Your task to perform on an android device: toggle sleep mode Image 0: 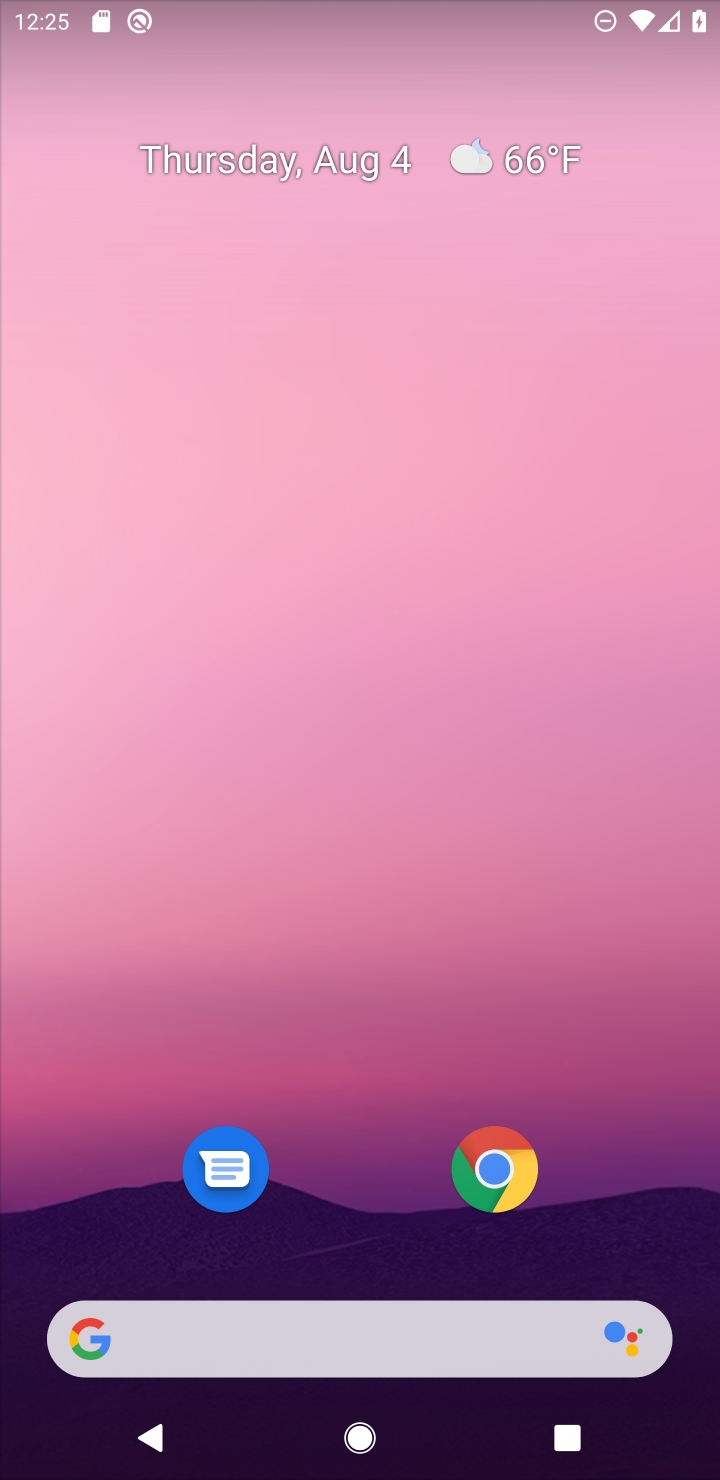
Step 0: drag from (605, 1154) to (639, 25)
Your task to perform on an android device: toggle sleep mode Image 1: 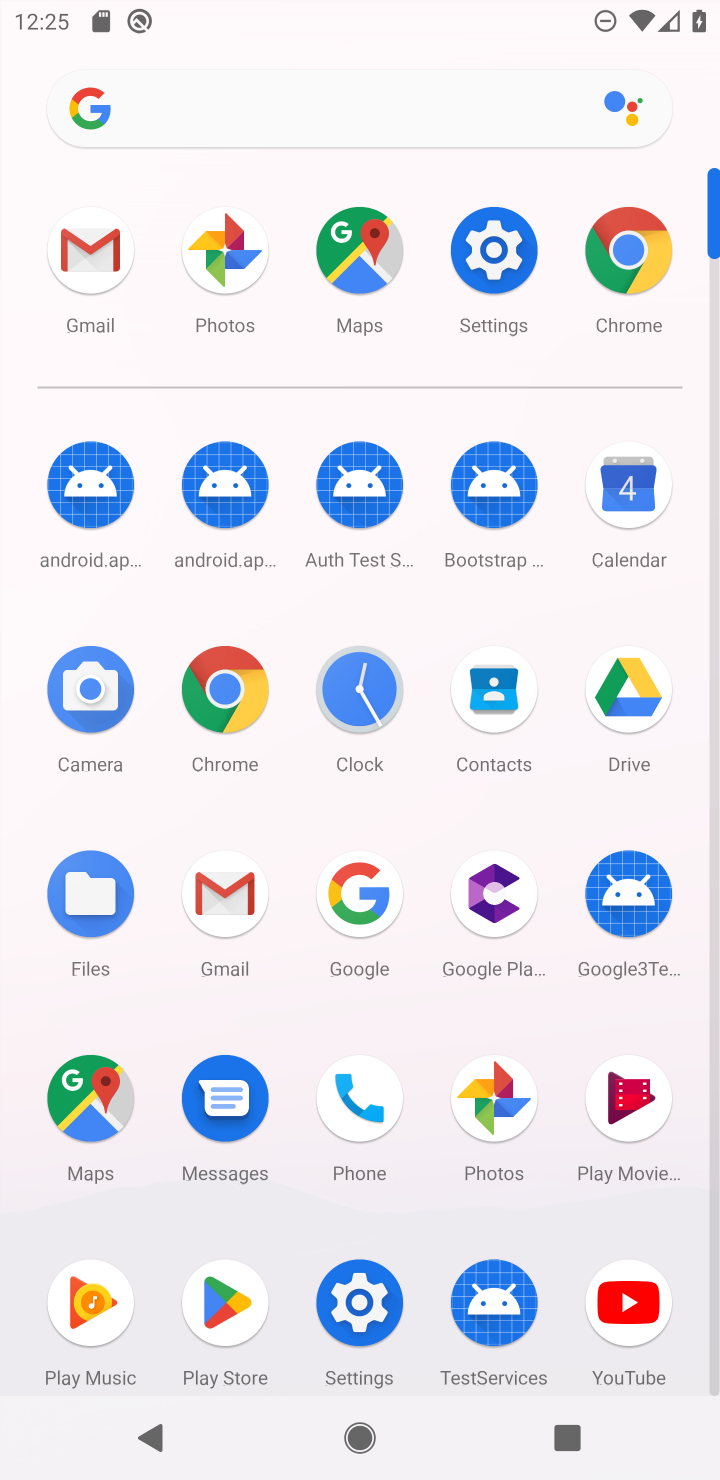
Step 1: click (492, 255)
Your task to perform on an android device: toggle sleep mode Image 2: 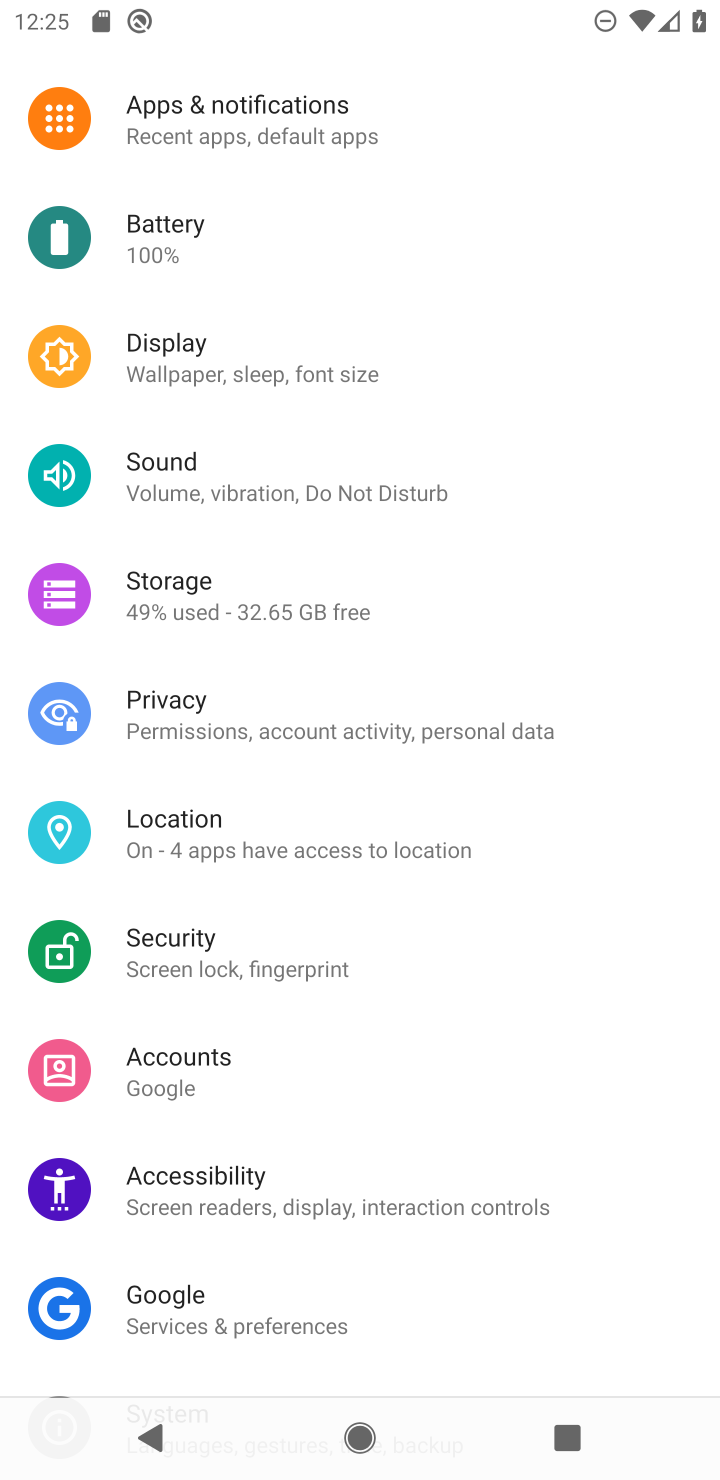
Step 2: click (202, 369)
Your task to perform on an android device: toggle sleep mode Image 3: 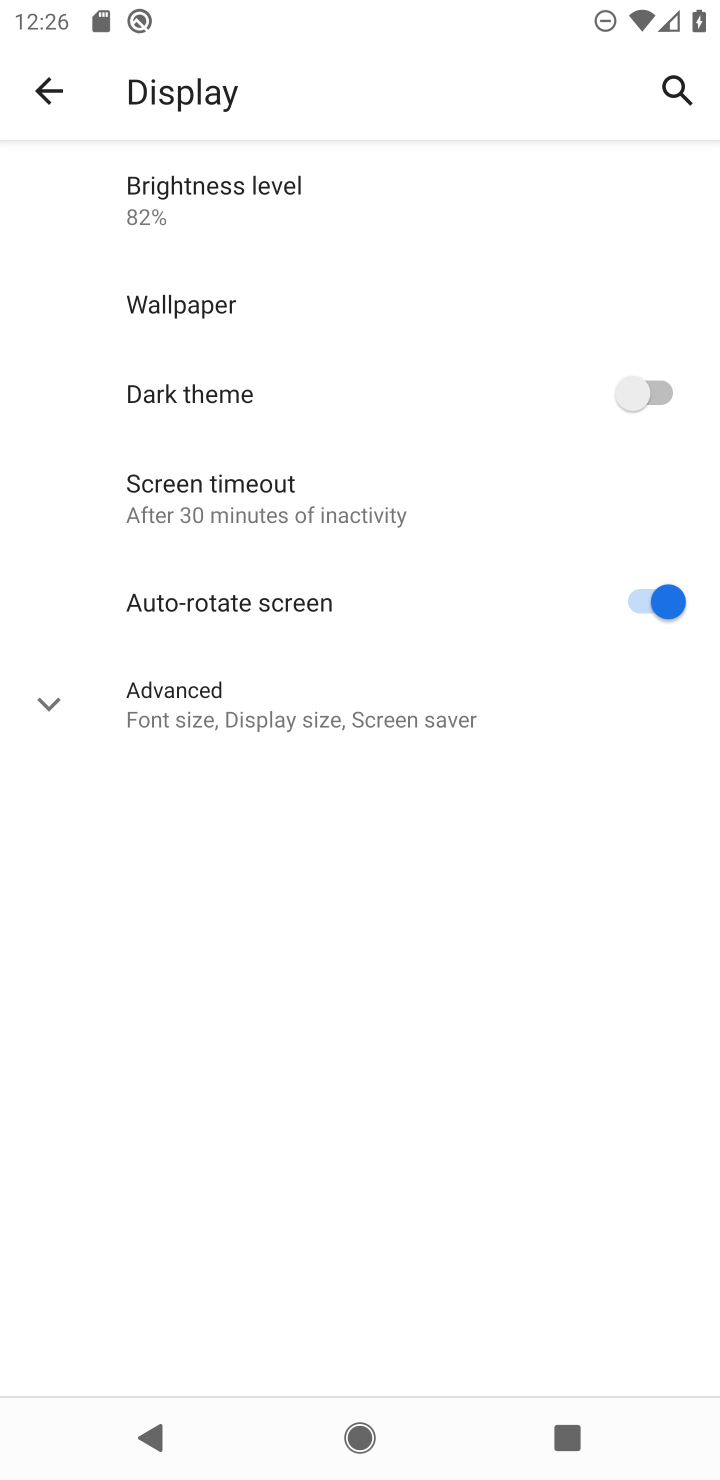
Step 3: click (56, 717)
Your task to perform on an android device: toggle sleep mode Image 4: 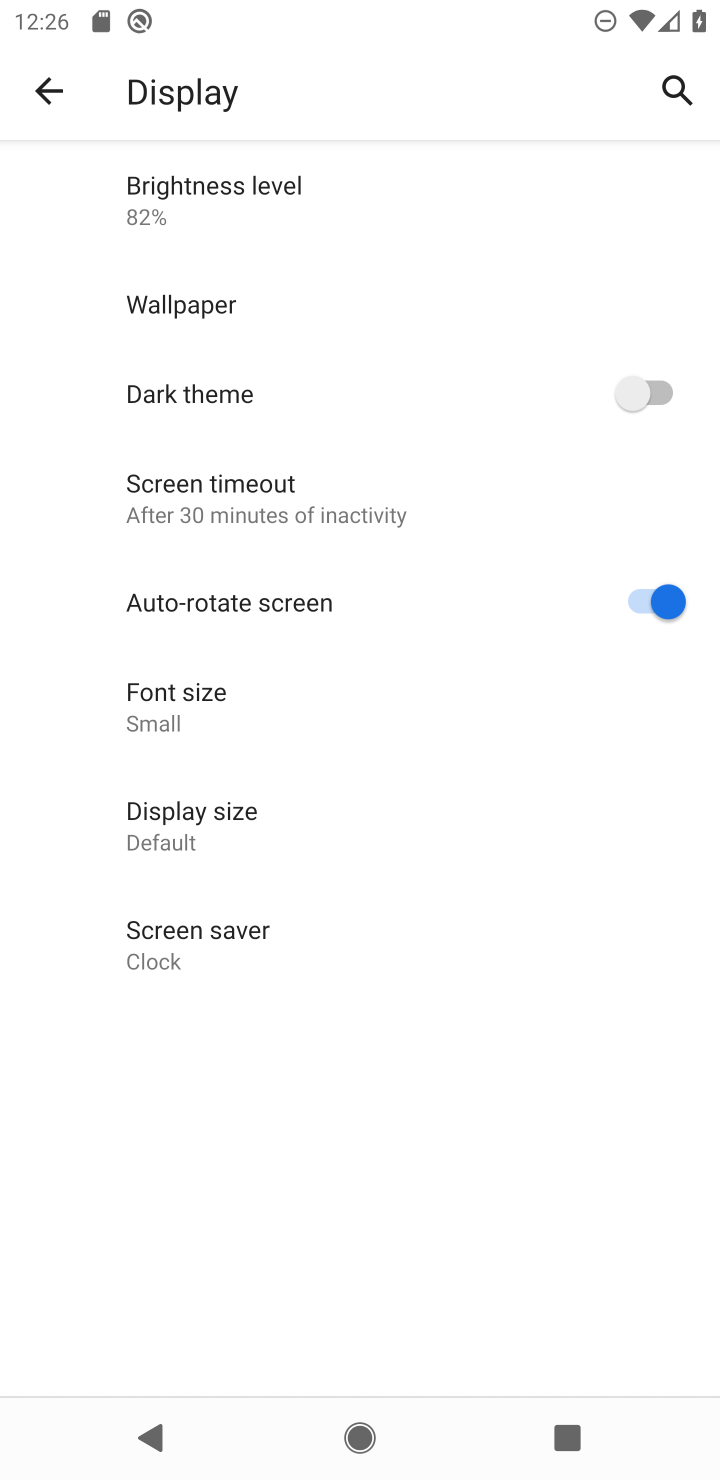
Step 4: task complete